Your task to perform on an android device: change your default location settings in chrome Image 0: 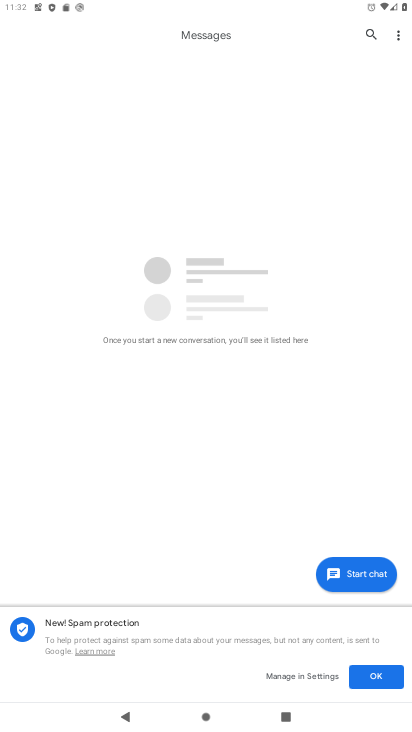
Step 0: press home button
Your task to perform on an android device: change your default location settings in chrome Image 1: 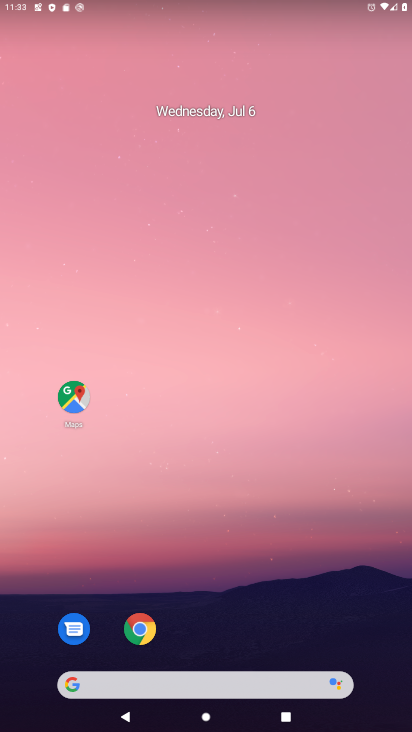
Step 1: drag from (229, 605) to (209, 151)
Your task to perform on an android device: change your default location settings in chrome Image 2: 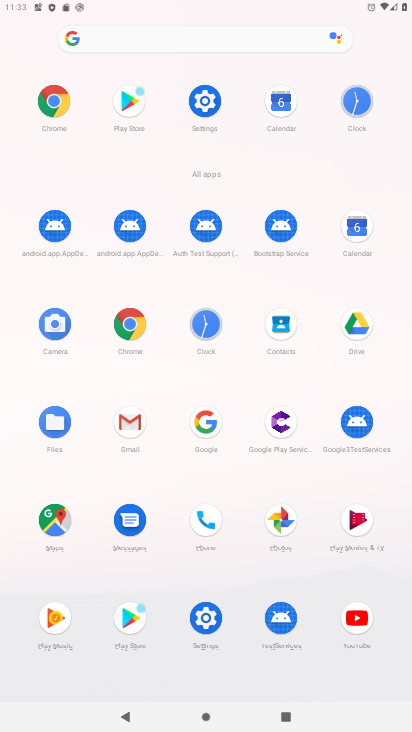
Step 2: click (54, 98)
Your task to perform on an android device: change your default location settings in chrome Image 3: 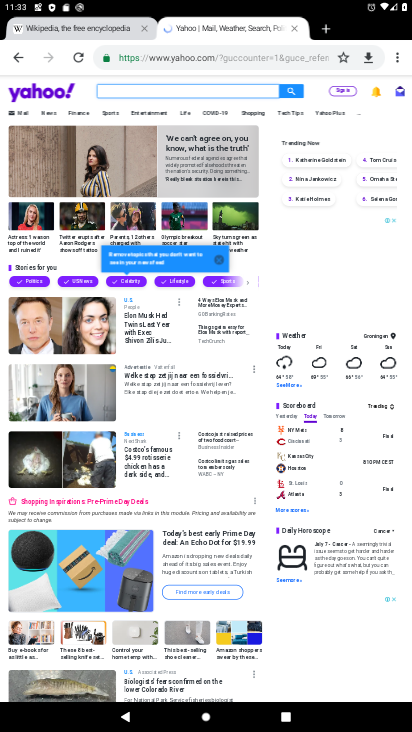
Step 3: click (398, 55)
Your task to perform on an android device: change your default location settings in chrome Image 4: 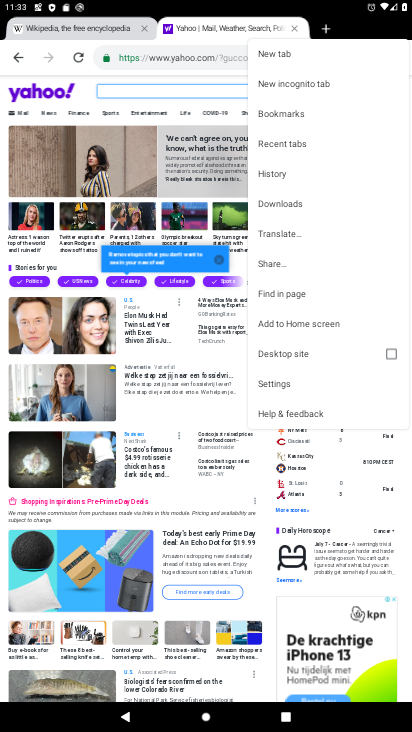
Step 4: click (273, 380)
Your task to perform on an android device: change your default location settings in chrome Image 5: 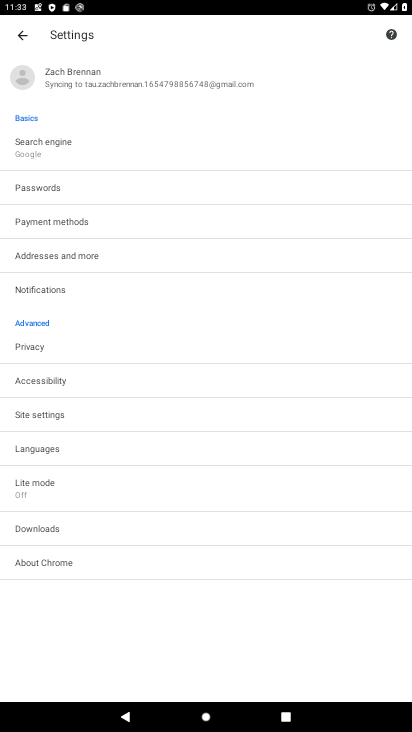
Step 5: click (43, 412)
Your task to perform on an android device: change your default location settings in chrome Image 6: 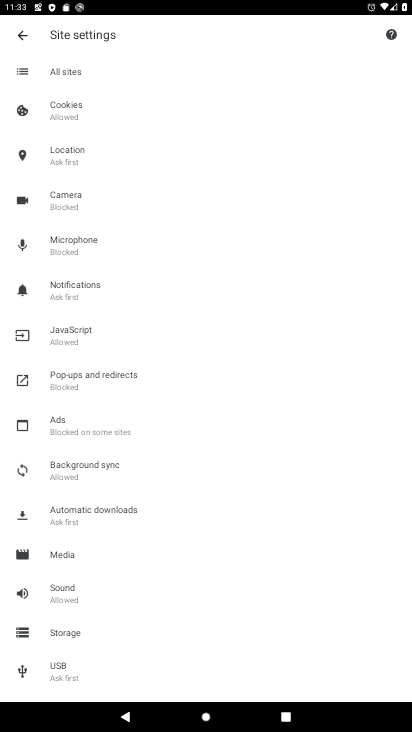
Step 6: click (73, 165)
Your task to perform on an android device: change your default location settings in chrome Image 7: 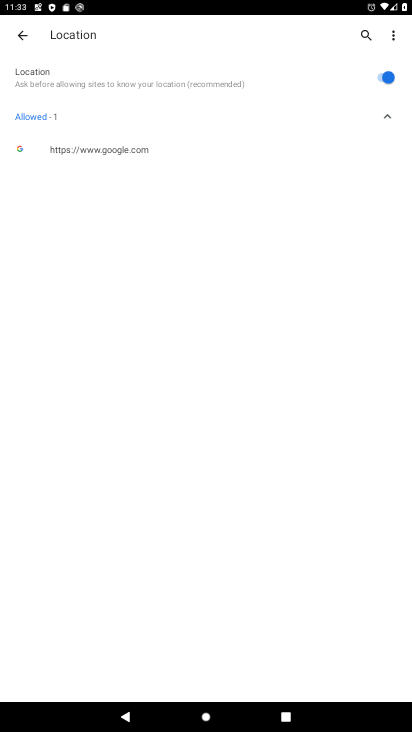
Step 7: click (390, 78)
Your task to perform on an android device: change your default location settings in chrome Image 8: 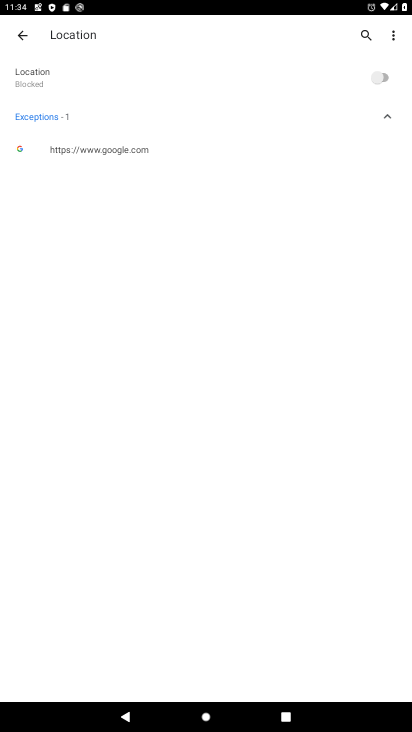
Step 8: task complete